Your task to perform on an android device: Go to privacy settings Image 0: 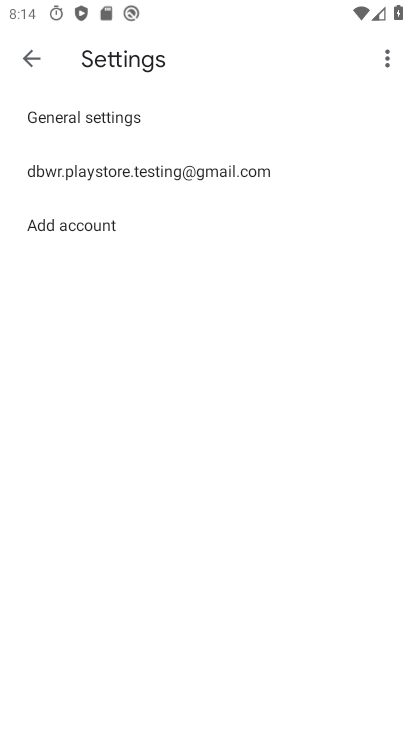
Step 0: press home button
Your task to perform on an android device: Go to privacy settings Image 1: 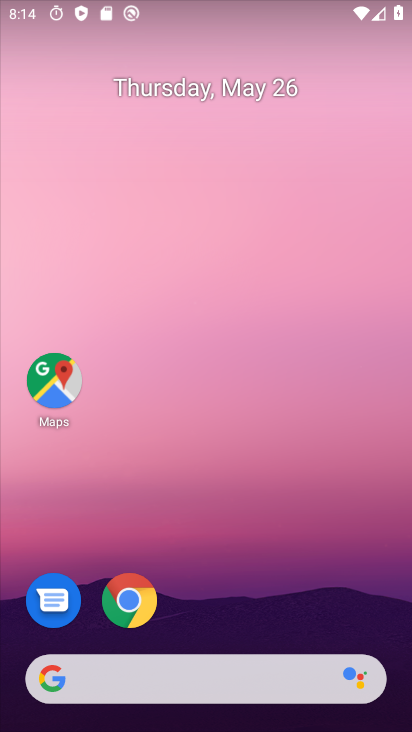
Step 1: click (128, 606)
Your task to perform on an android device: Go to privacy settings Image 2: 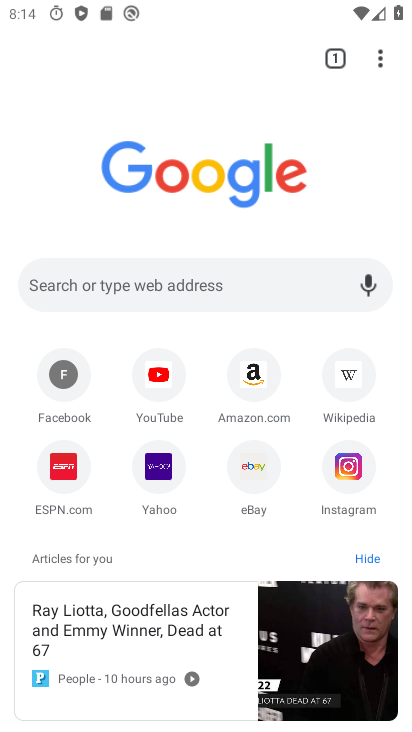
Step 2: click (372, 63)
Your task to perform on an android device: Go to privacy settings Image 3: 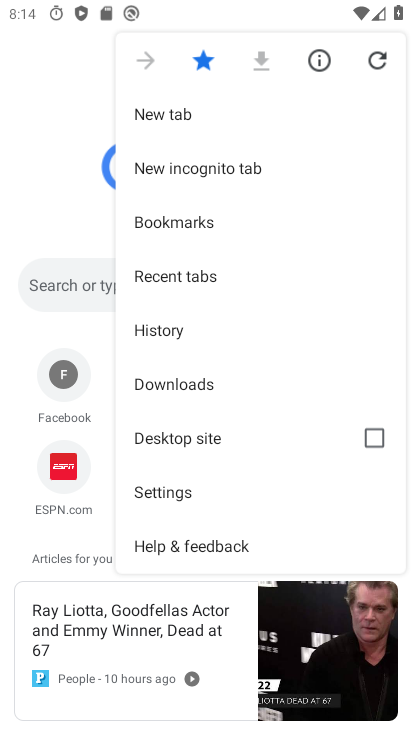
Step 3: click (179, 490)
Your task to perform on an android device: Go to privacy settings Image 4: 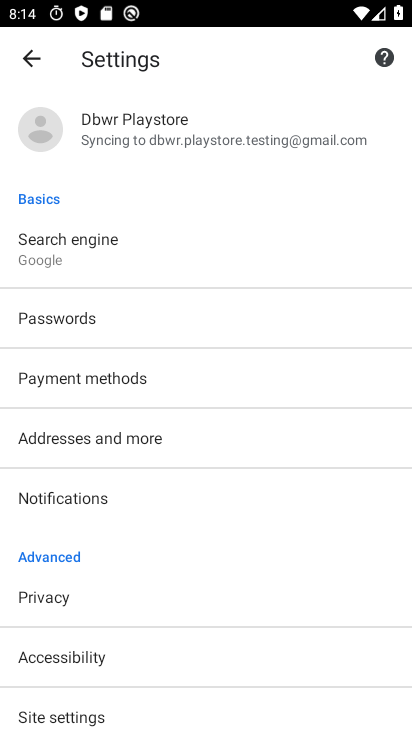
Step 4: click (38, 605)
Your task to perform on an android device: Go to privacy settings Image 5: 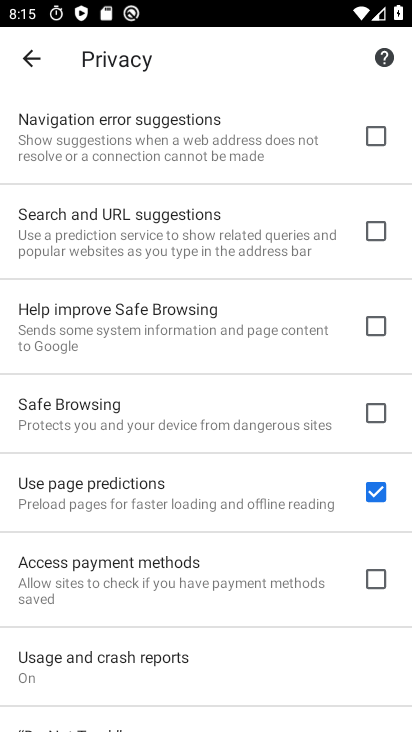
Step 5: task complete